Your task to perform on an android device: Go to display settings Image 0: 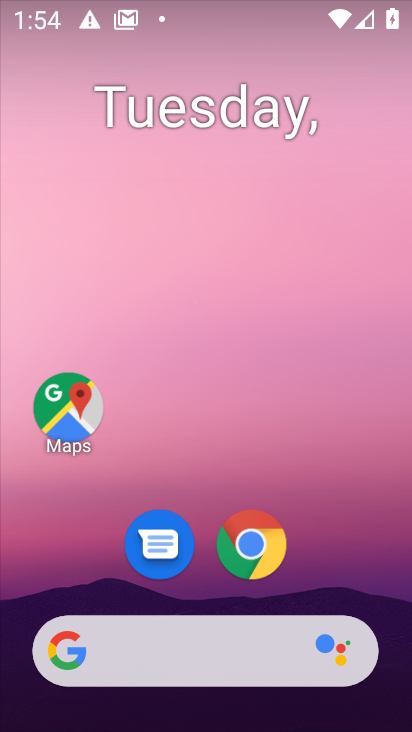
Step 0: drag from (160, 670) to (234, 164)
Your task to perform on an android device: Go to display settings Image 1: 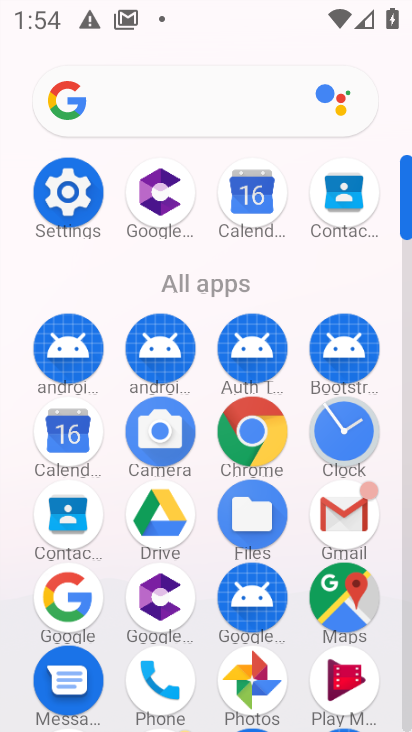
Step 1: click (67, 193)
Your task to perform on an android device: Go to display settings Image 2: 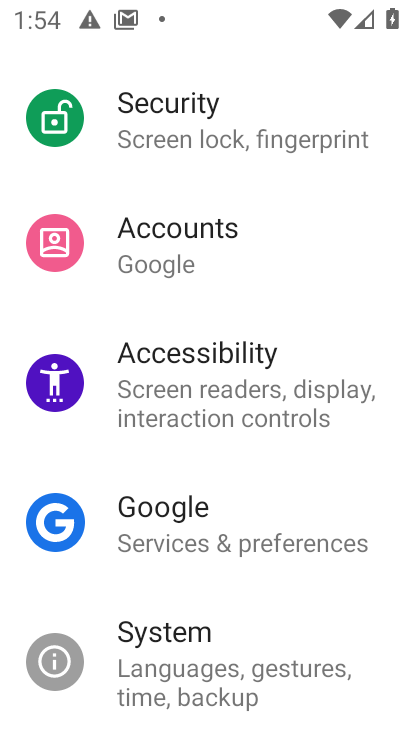
Step 2: drag from (243, 306) to (240, 490)
Your task to perform on an android device: Go to display settings Image 3: 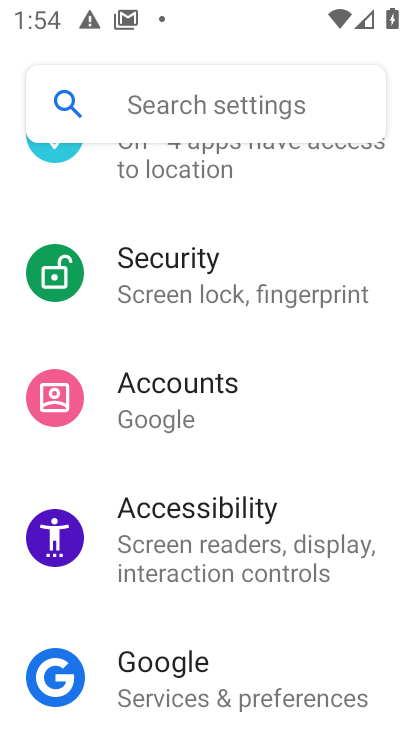
Step 3: drag from (186, 231) to (187, 380)
Your task to perform on an android device: Go to display settings Image 4: 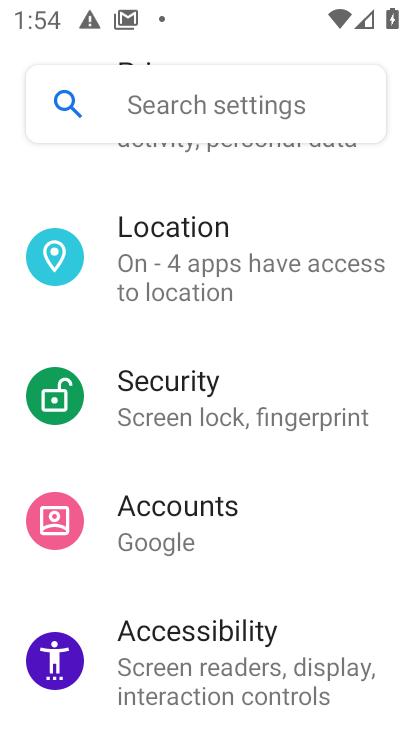
Step 4: drag from (162, 197) to (160, 432)
Your task to perform on an android device: Go to display settings Image 5: 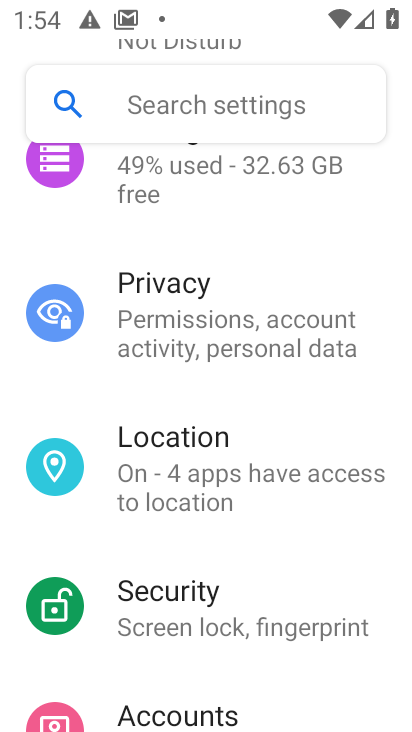
Step 5: drag from (156, 248) to (173, 421)
Your task to perform on an android device: Go to display settings Image 6: 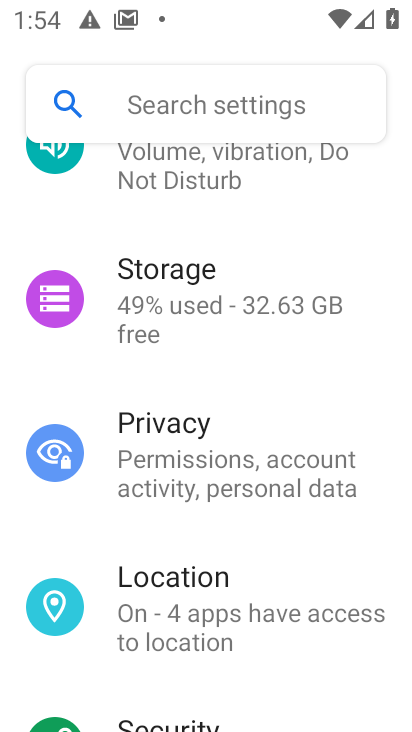
Step 6: drag from (153, 241) to (185, 414)
Your task to perform on an android device: Go to display settings Image 7: 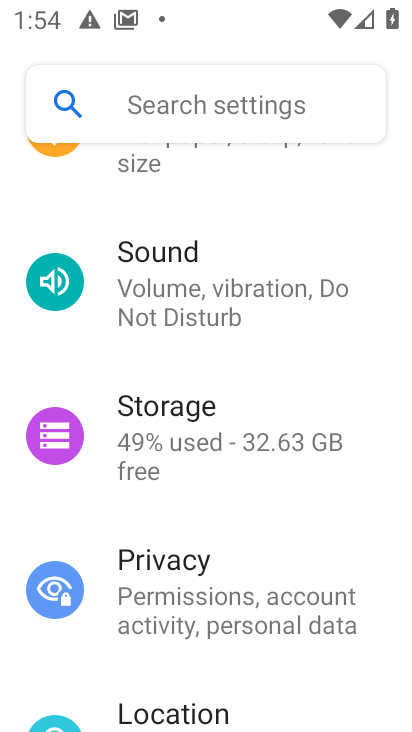
Step 7: drag from (180, 227) to (177, 465)
Your task to perform on an android device: Go to display settings Image 8: 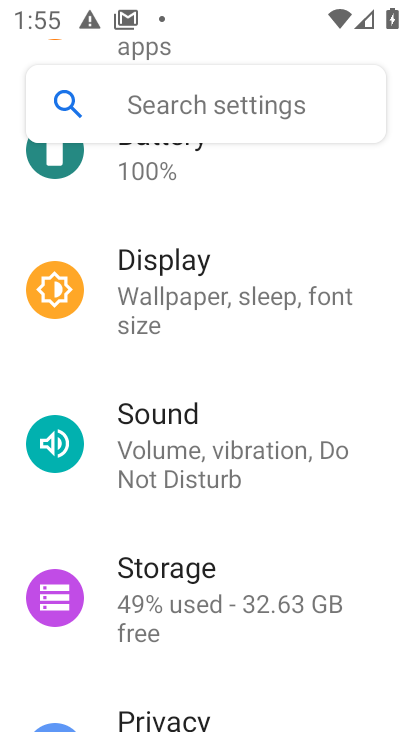
Step 8: click (169, 279)
Your task to perform on an android device: Go to display settings Image 9: 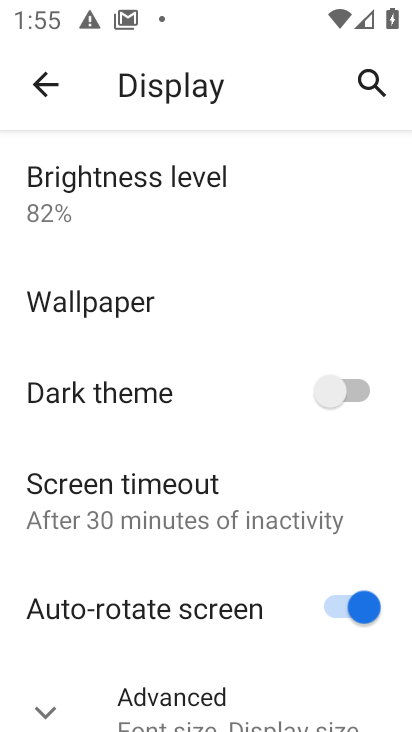
Step 9: task complete